Your task to perform on an android device: turn on bluetooth scan Image 0: 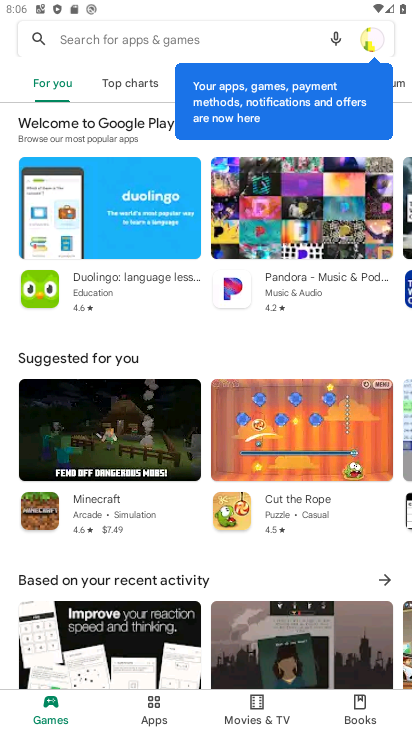
Step 0: drag from (217, 556) to (209, 241)
Your task to perform on an android device: turn on bluetooth scan Image 1: 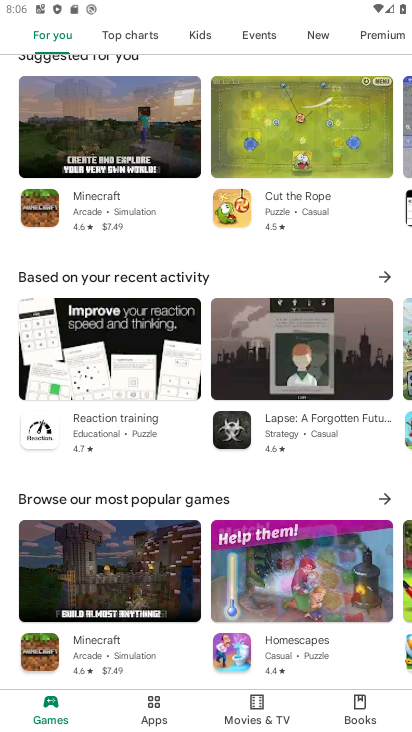
Step 1: press home button
Your task to perform on an android device: turn on bluetooth scan Image 2: 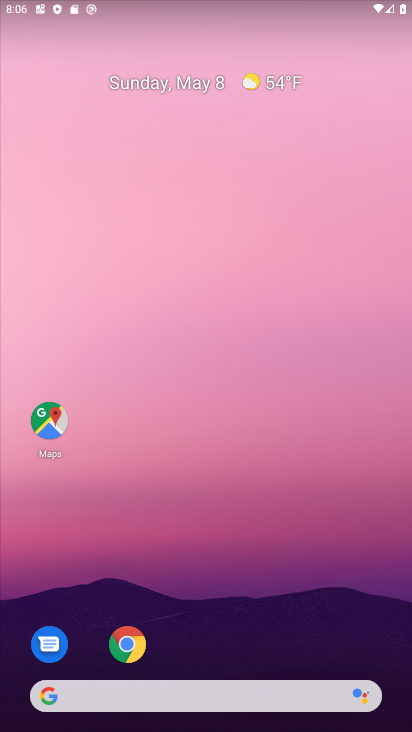
Step 2: drag from (249, 632) to (307, 132)
Your task to perform on an android device: turn on bluetooth scan Image 3: 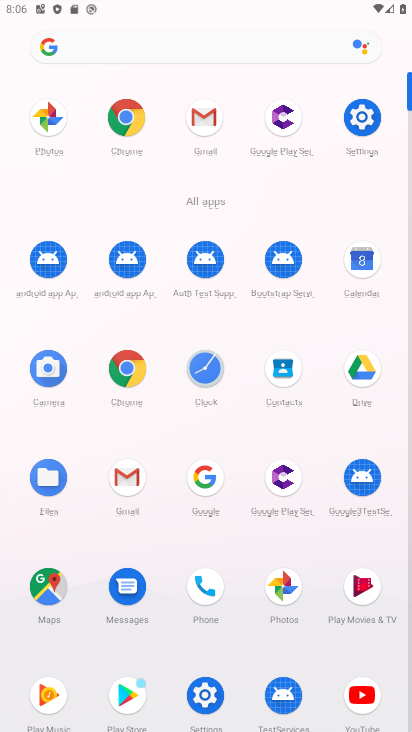
Step 3: click (352, 121)
Your task to perform on an android device: turn on bluetooth scan Image 4: 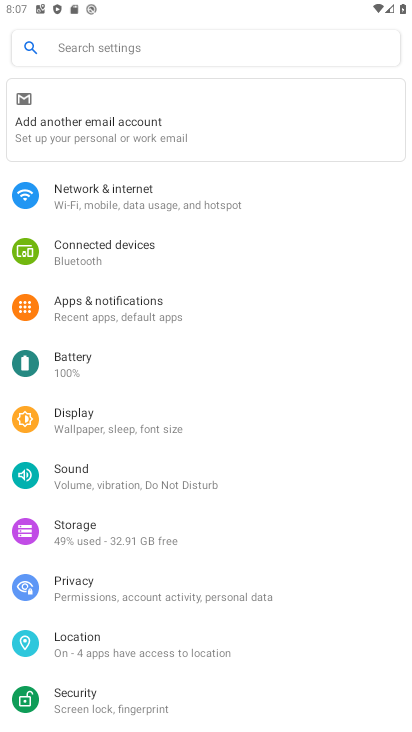
Step 4: click (111, 50)
Your task to perform on an android device: turn on bluetooth scan Image 5: 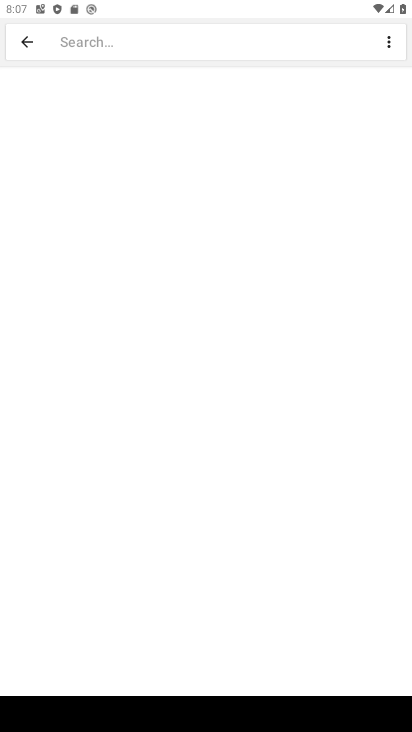
Step 5: type "bluetooth scan"
Your task to perform on an android device: turn on bluetooth scan Image 6: 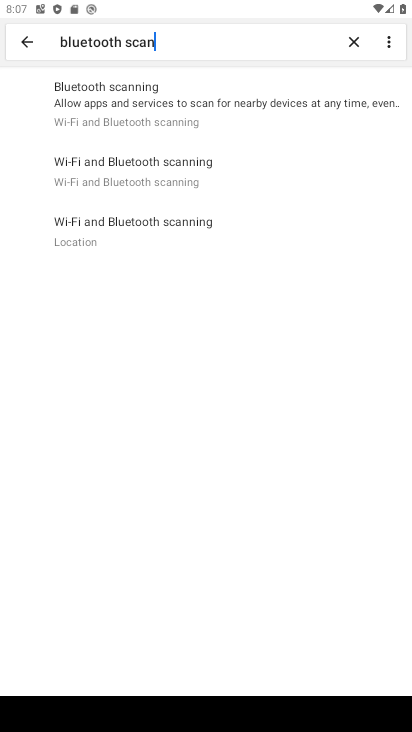
Step 6: click (180, 95)
Your task to perform on an android device: turn on bluetooth scan Image 7: 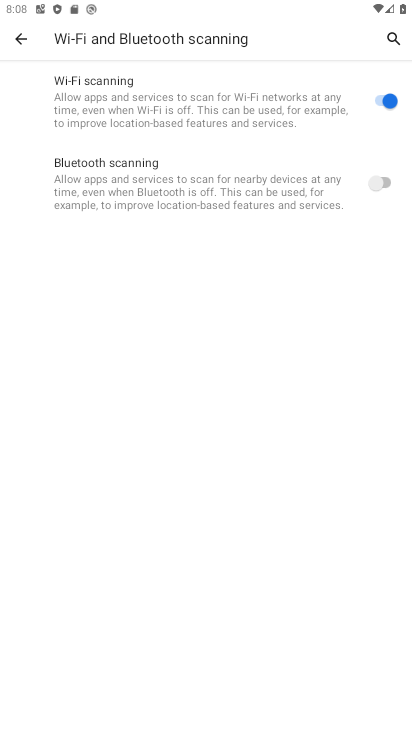
Step 7: click (330, 180)
Your task to perform on an android device: turn on bluetooth scan Image 8: 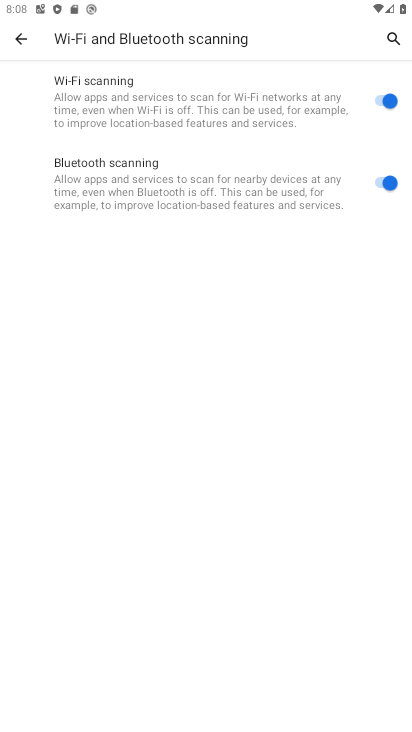
Step 8: task complete